Your task to perform on an android device: Open accessibility settings Image 0: 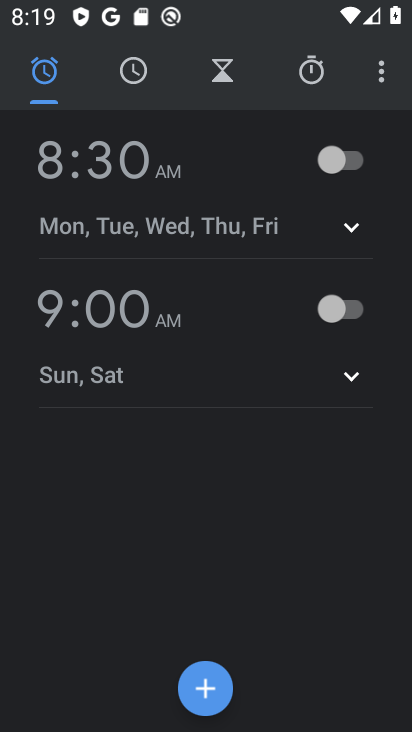
Step 0: press home button
Your task to perform on an android device: Open accessibility settings Image 1: 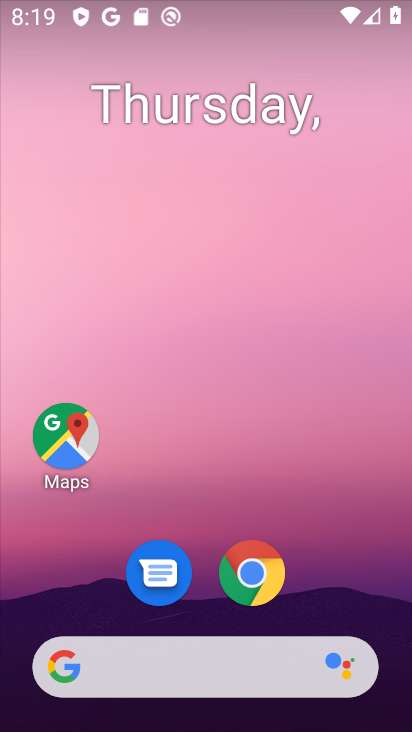
Step 1: drag from (338, 583) to (304, 117)
Your task to perform on an android device: Open accessibility settings Image 2: 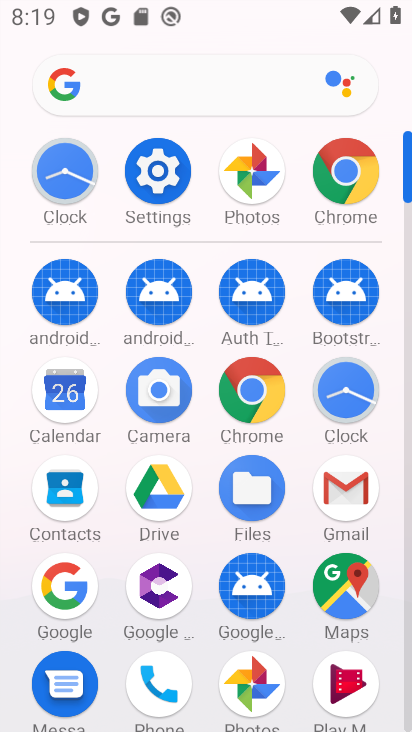
Step 2: click (148, 177)
Your task to perform on an android device: Open accessibility settings Image 3: 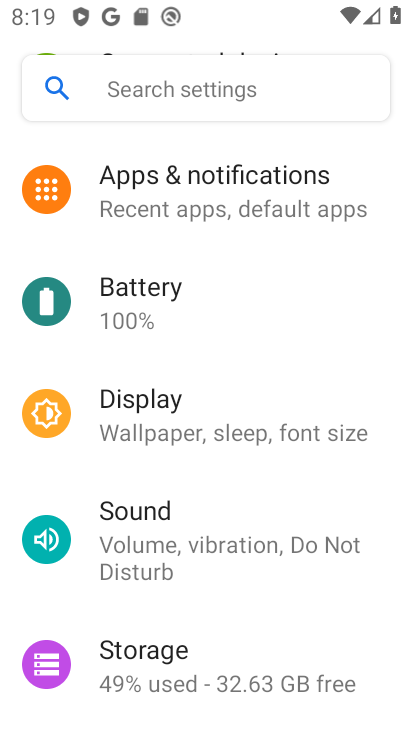
Step 3: drag from (178, 604) to (163, 206)
Your task to perform on an android device: Open accessibility settings Image 4: 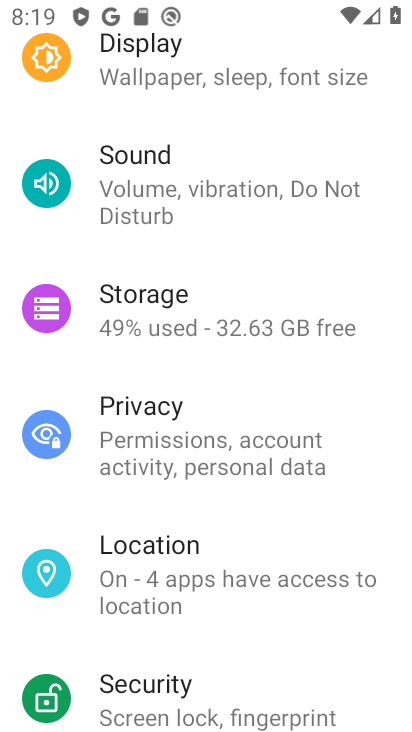
Step 4: drag from (204, 640) to (229, 258)
Your task to perform on an android device: Open accessibility settings Image 5: 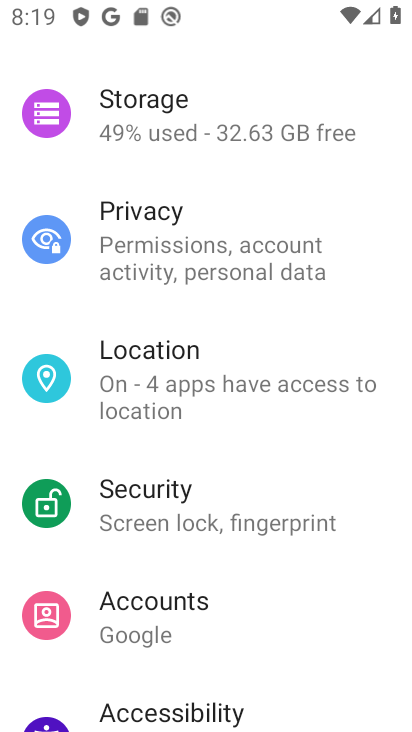
Step 5: drag from (207, 679) to (224, 271)
Your task to perform on an android device: Open accessibility settings Image 6: 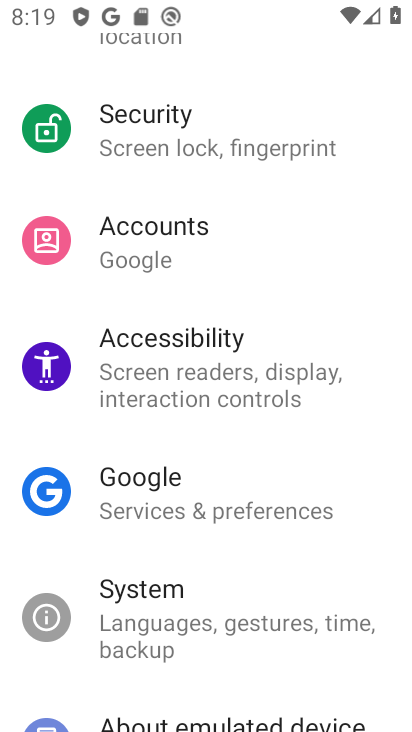
Step 6: click (173, 387)
Your task to perform on an android device: Open accessibility settings Image 7: 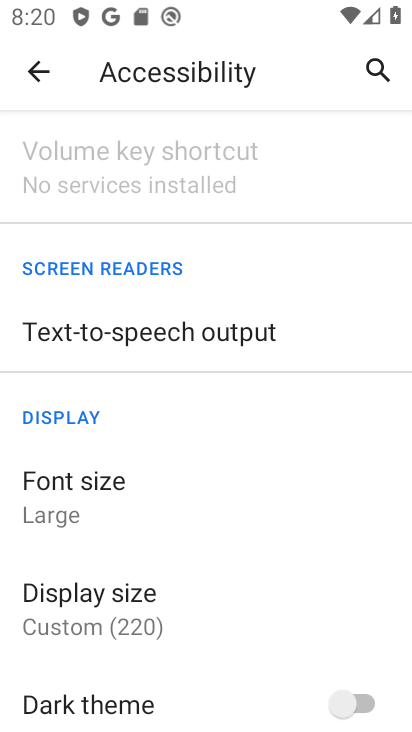
Step 7: task complete